Your task to perform on an android device: Open Wikipedia Image 0: 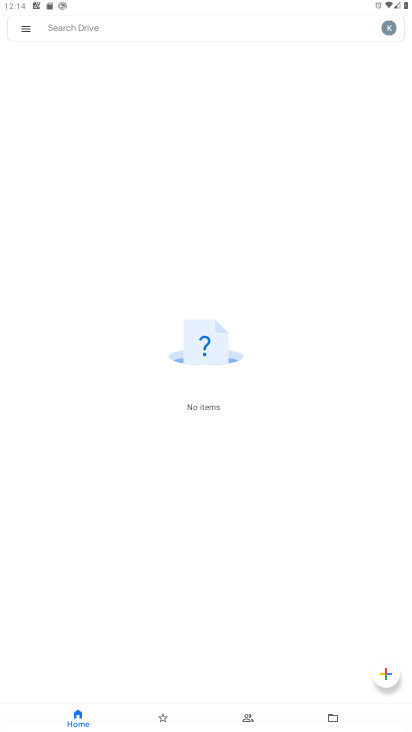
Step 0: press home button
Your task to perform on an android device: Open Wikipedia Image 1: 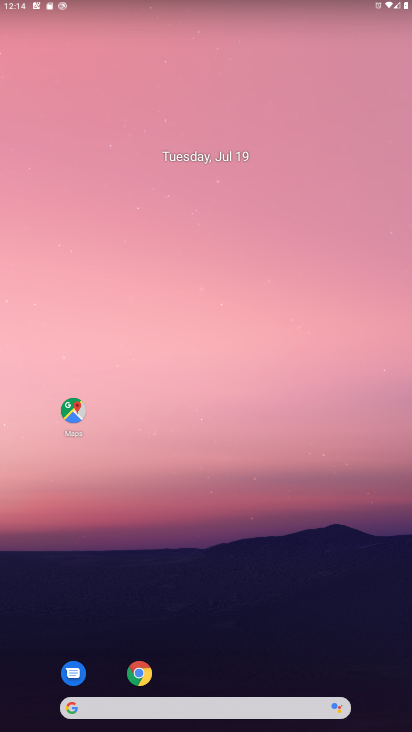
Step 1: click (147, 675)
Your task to perform on an android device: Open Wikipedia Image 2: 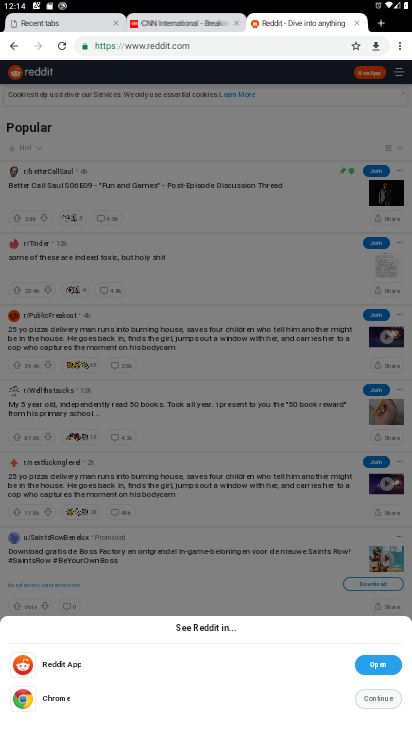
Step 2: click (387, 20)
Your task to perform on an android device: Open Wikipedia Image 3: 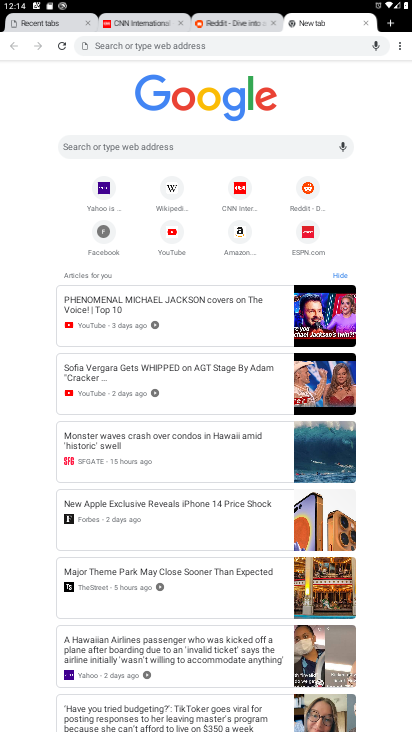
Step 3: click (176, 192)
Your task to perform on an android device: Open Wikipedia Image 4: 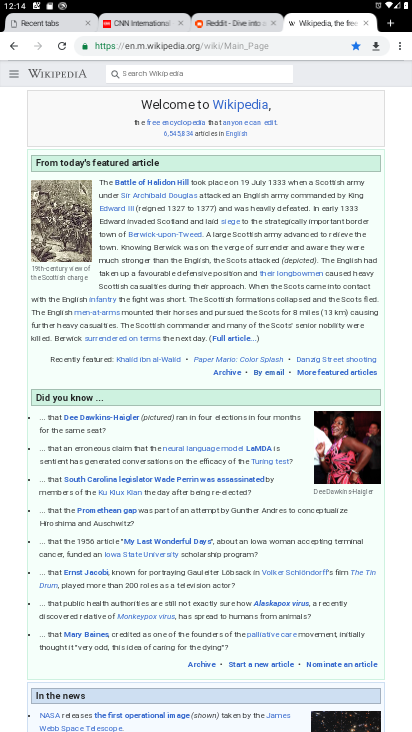
Step 4: task complete